Your task to perform on an android device: check storage Image 0: 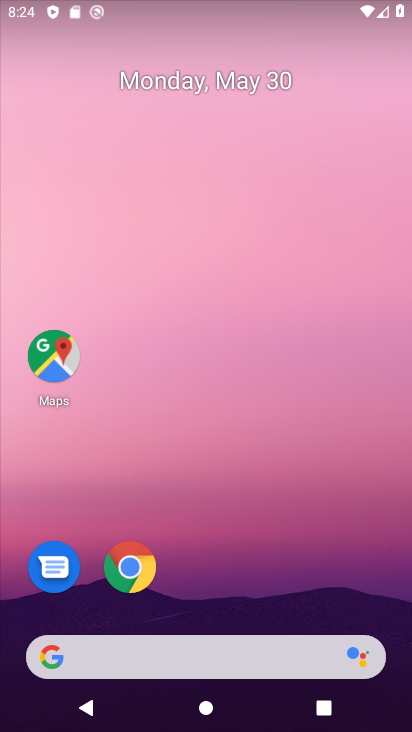
Step 0: drag from (206, 614) to (252, 144)
Your task to perform on an android device: check storage Image 1: 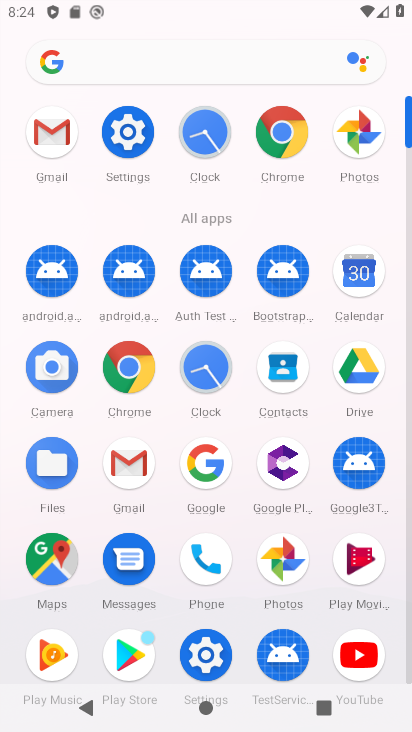
Step 1: click (160, 133)
Your task to perform on an android device: check storage Image 2: 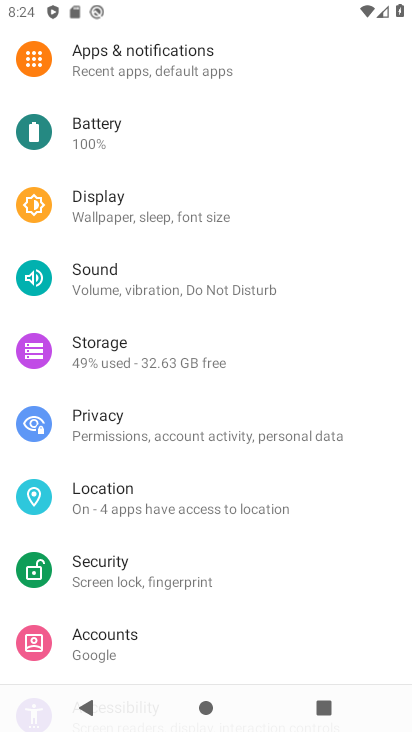
Step 2: click (124, 351)
Your task to perform on an android device: check storage Image 3: 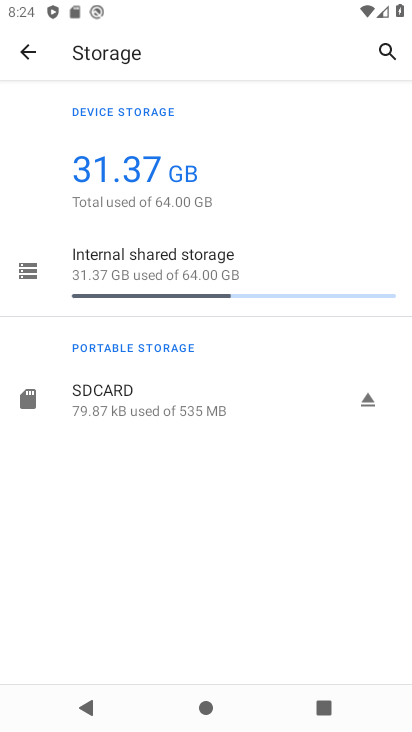
Step 3: task complete